Your task to perform on an android device: open app "Spotify" (install if not already installed) and enter user name: "infallible@icloud.com" and password: "implored" Image 0: 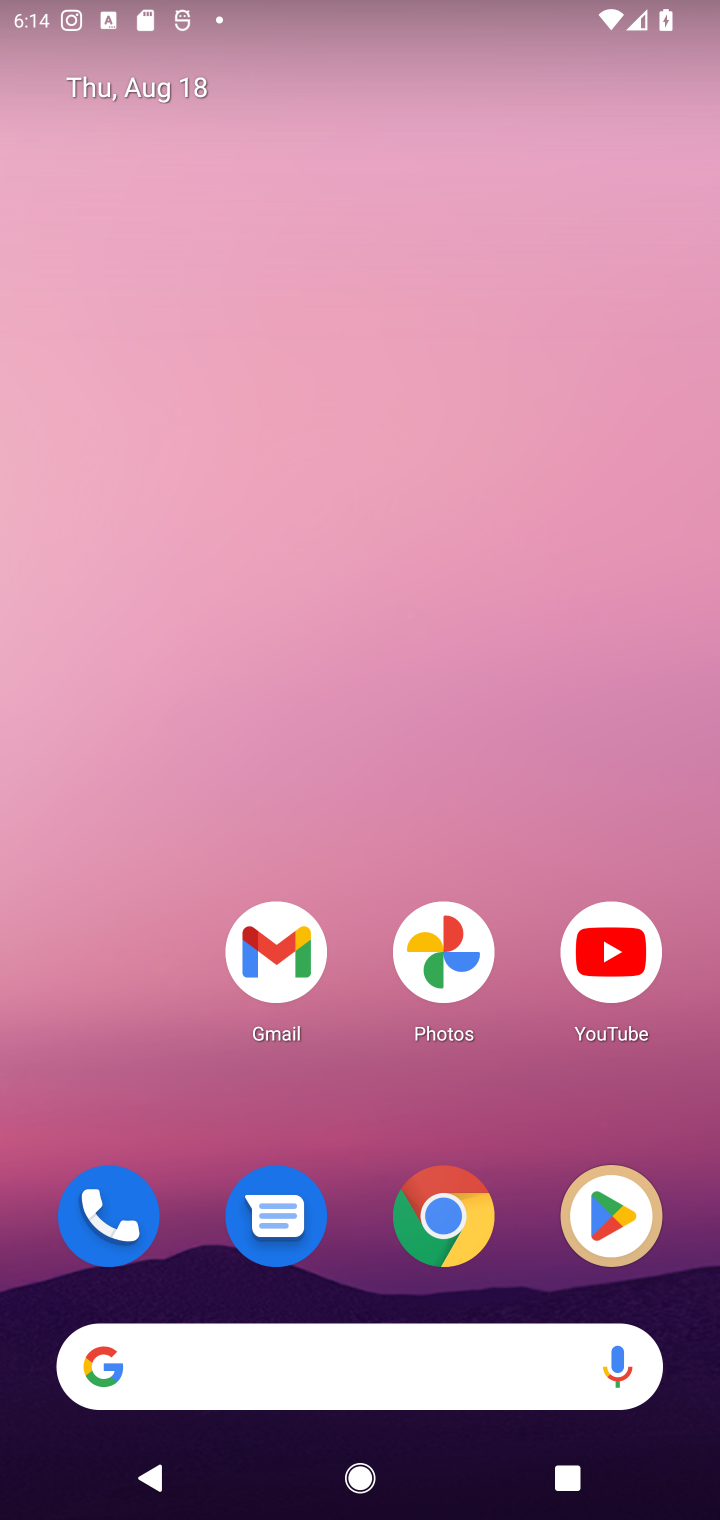
Step 0: click (588, 1186)
Your task to perform on an android device: open app "Spotify" (install if not already installed) and enter user name: "infallible@icloud.com" and password: "implored" Image 1: 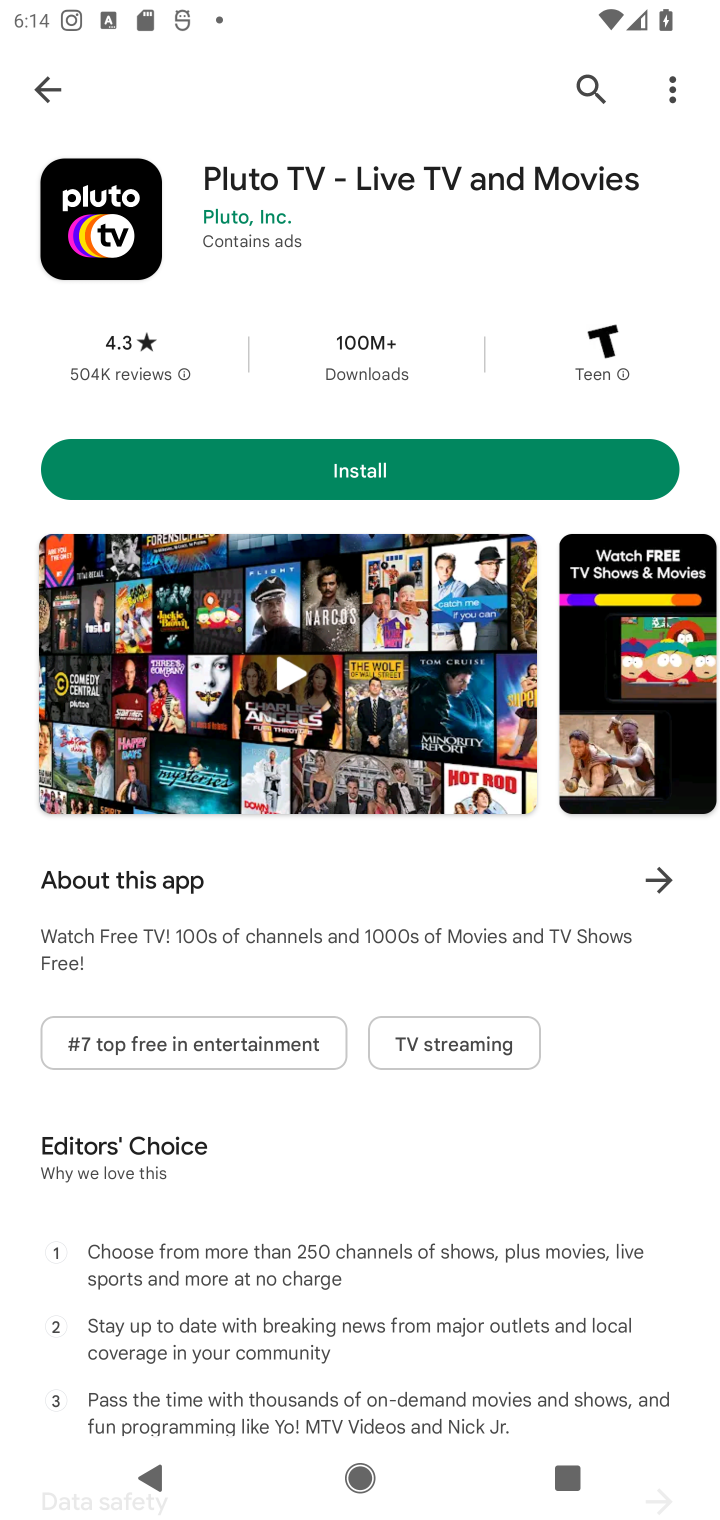
Step 1: click (579, 67)
Your task to perform on an android device: open app "Spotify" (install if not already installed) and enter user name: "infallible@icloud.com" and password: "implored" Image 2: 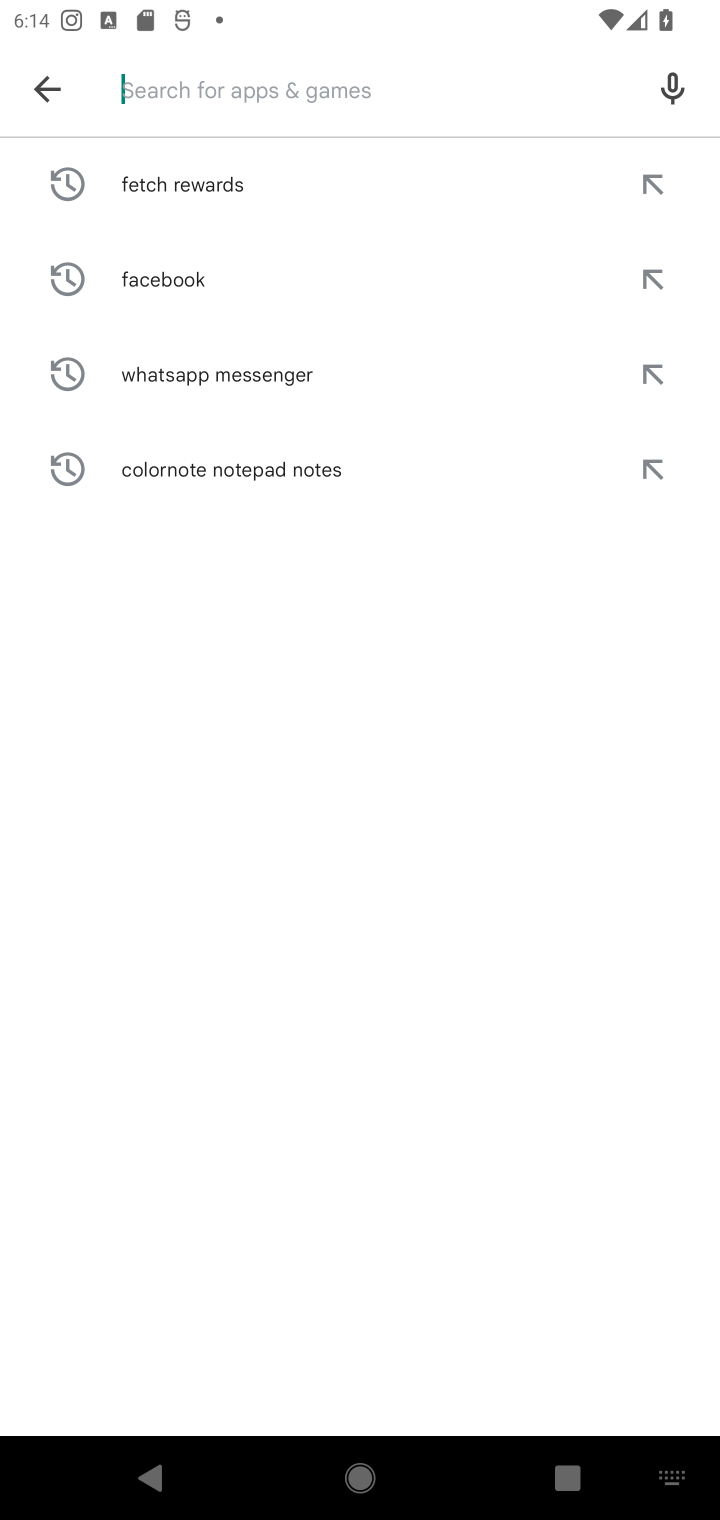
Step 2: type "Spotify"
Your task to perform on an android device: open app "Spotify" (install if not already installed) and enter user name: "infallible@icloud.com" and password: "implored" Image 3: 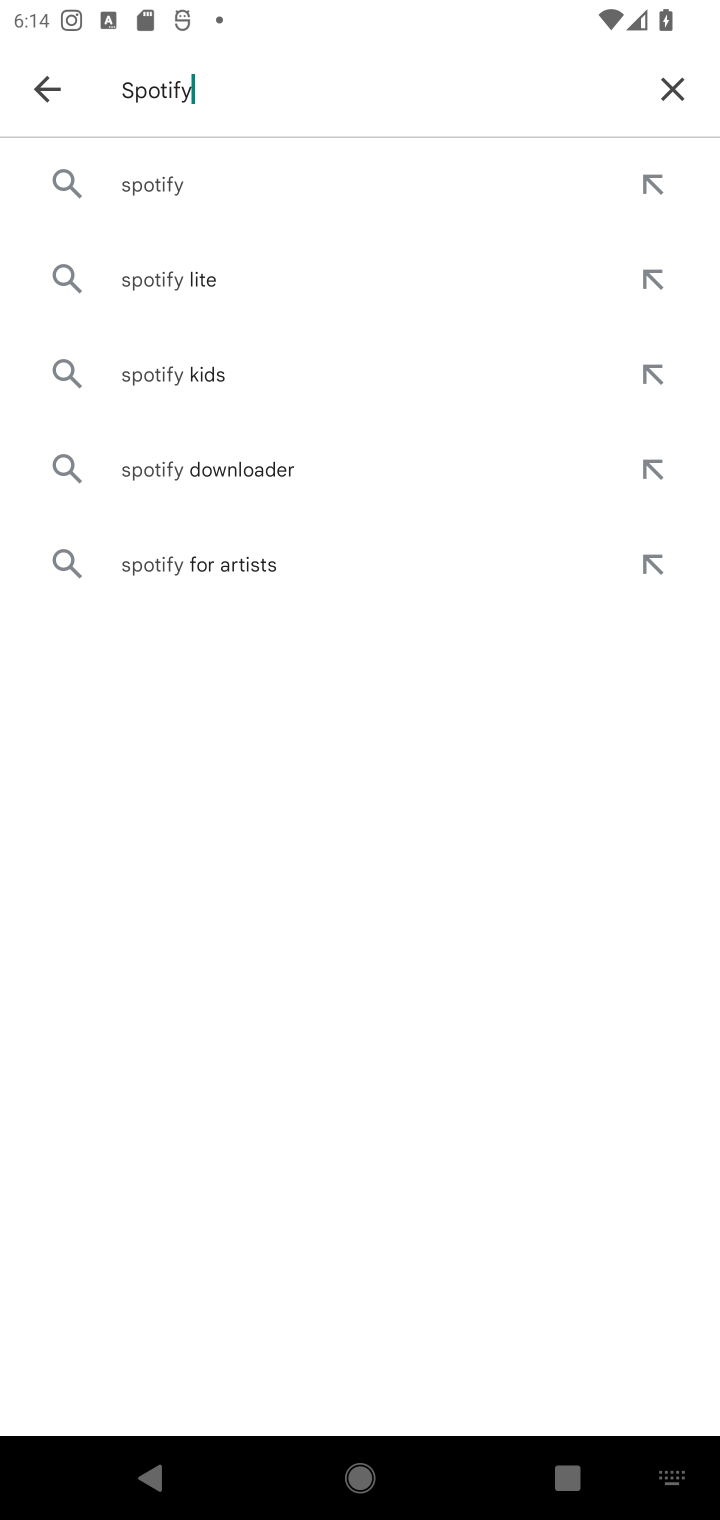
Step 3: click (300, 155)
Your task to perform on an android device: open app "Spotify" (install if not already installed) and enter user name: "infallible@icloud.com" and password: "implored" Image 4: 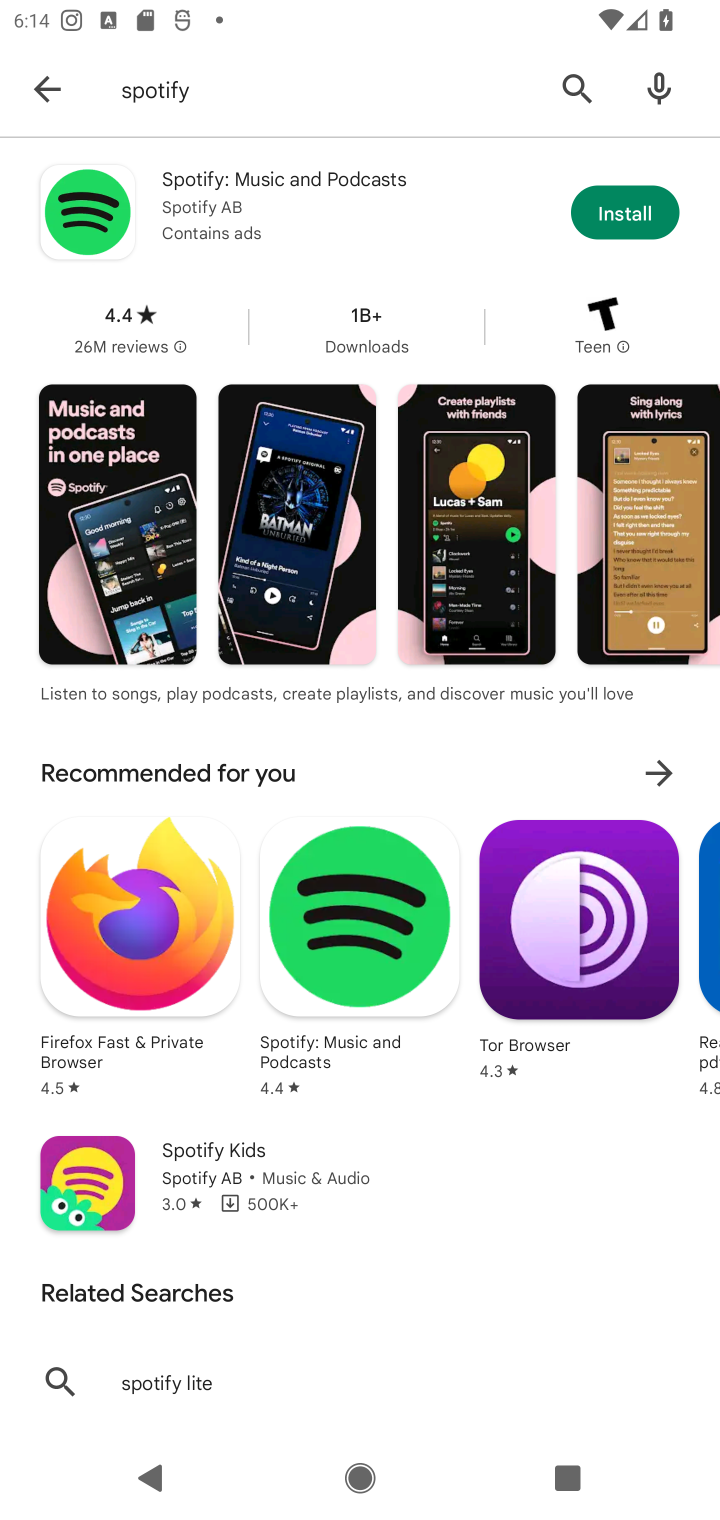
Step 4: click (634, 217)
Your task to perform on an android device: open app "Spotify" (install if not already installed) and enter user name: "infallible@icloud.com" and password: "implored" Image 5: 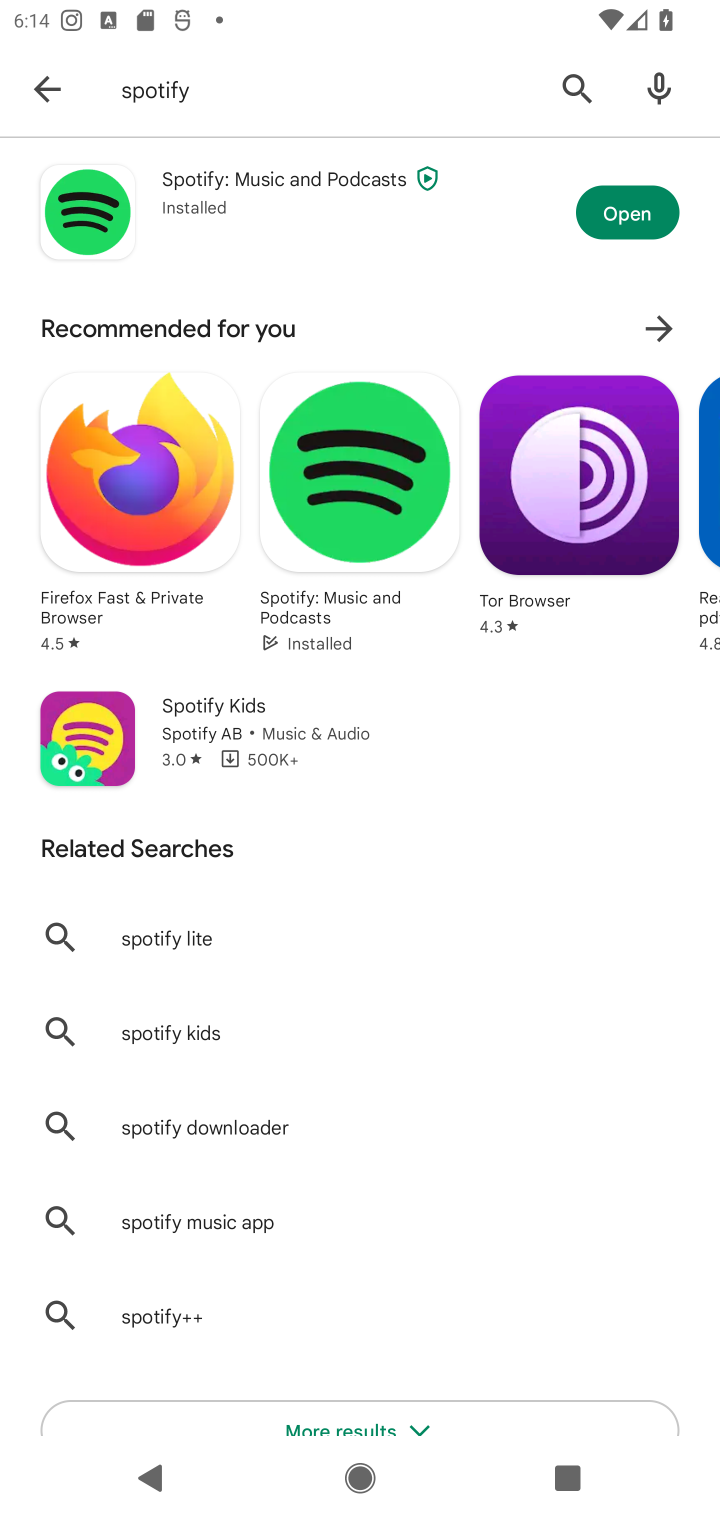
Step 5: click (631, 215)
Your task to perform on an android device: open app "Spotify" (install if not already installed) and enter user name: "infallible@icloud.com" and password: "implored" Image 6: 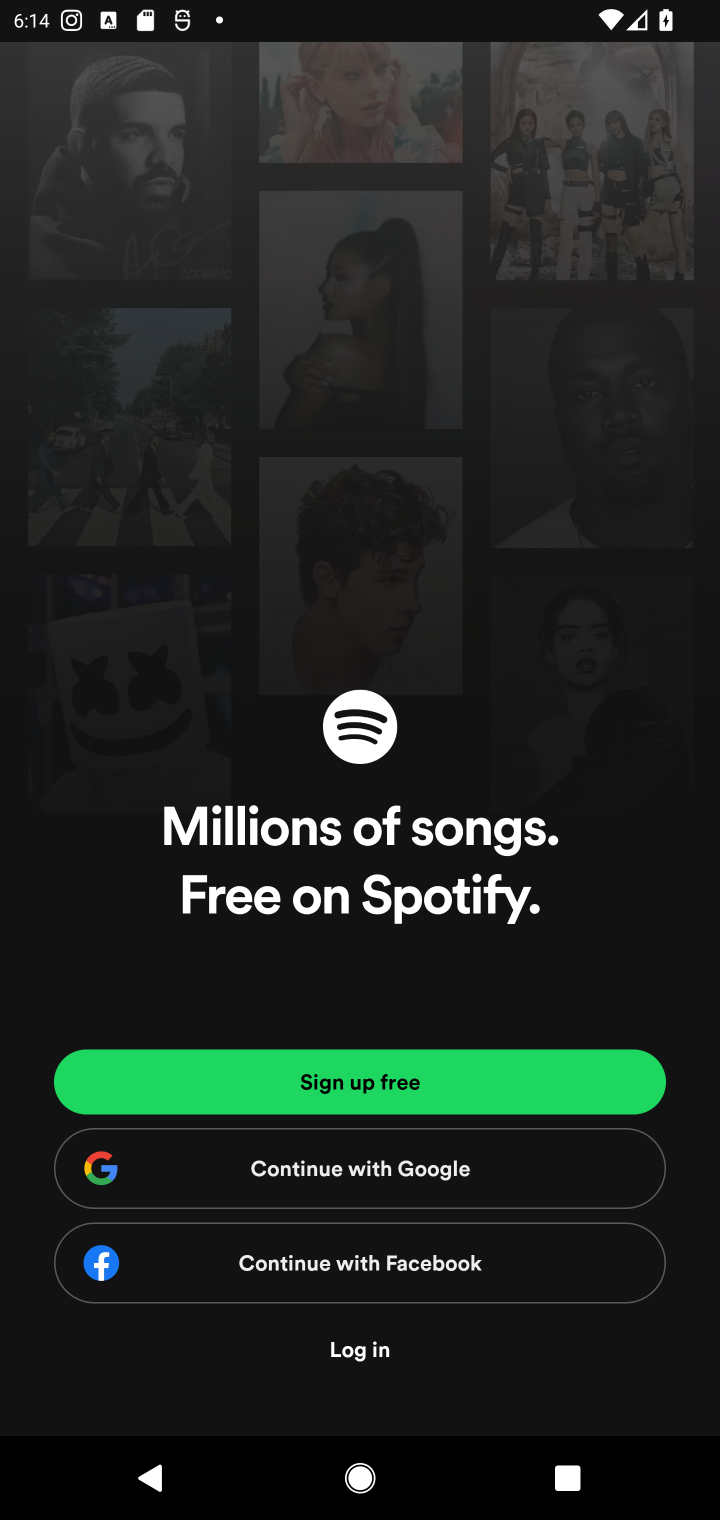
Step 6: task complete